Your task to perform on an android device: Find coffee shops on Maps Image 0: 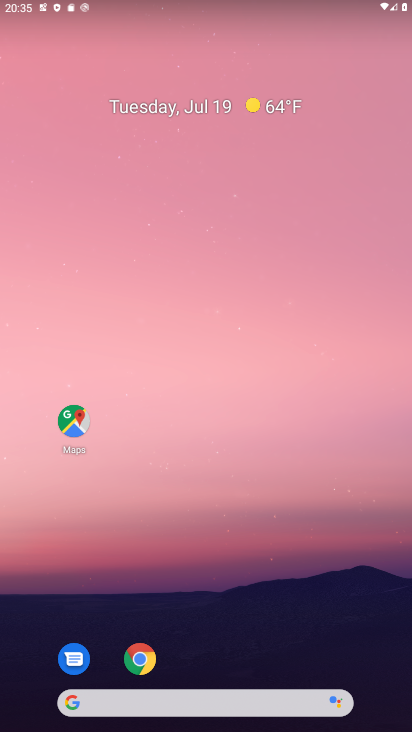
Step 0: click (61, 429)
Your task to perform on an android device: Find coffee shops on Maps Image 1: 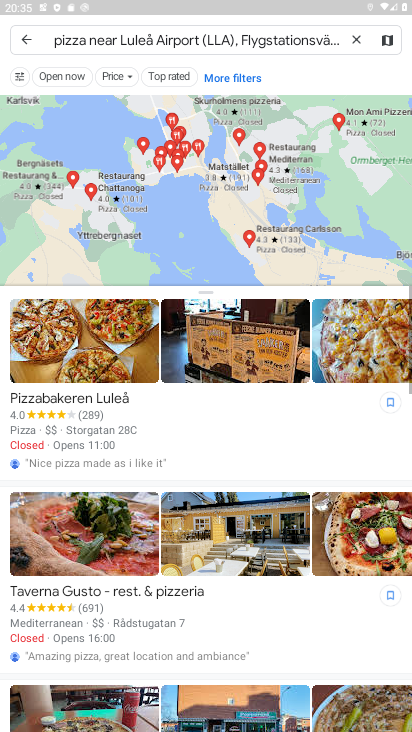
Step 1: click (358, 40)
Your task to perform on an android device: Find coffee shops on Maps Image 2: 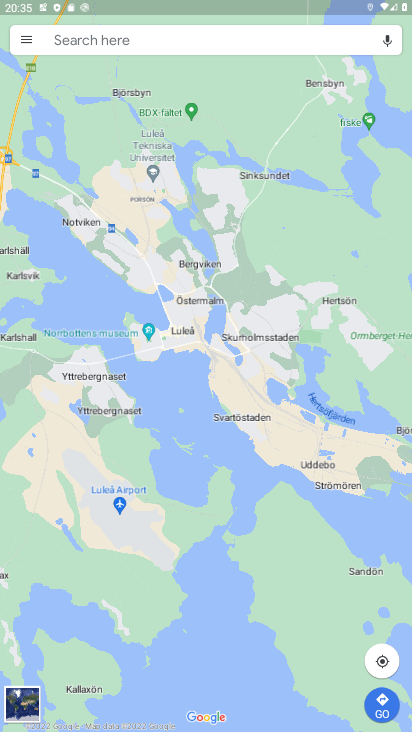
Step 2: click (204, 47)
Your task to perform on an android device: Find coffee shops on Maps Image 3: 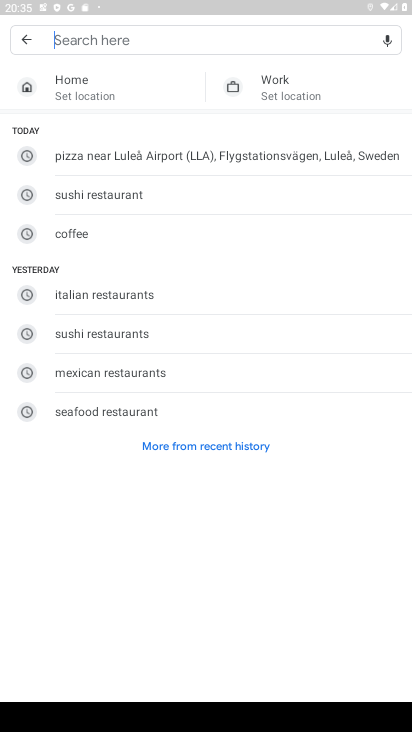
Step 3: click (84, 231)
Your task to perform on an android device: Find coffee shops on Maps Image 4: 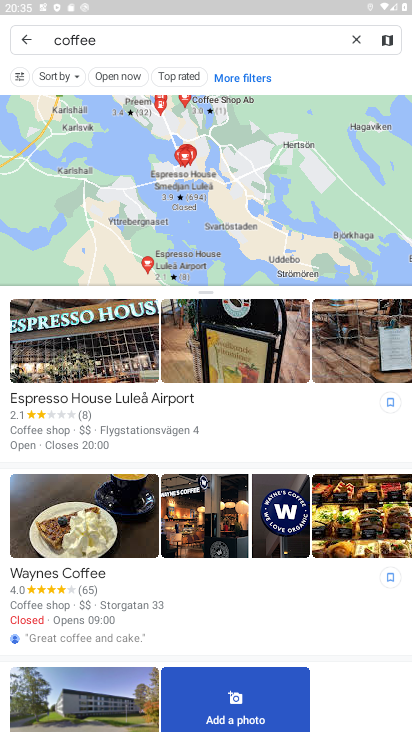
Step 4: task complete